Your task to perform on an android device: Add "bose quietcomfort 35" to the cart on ebay, then select checkout. Image 0: 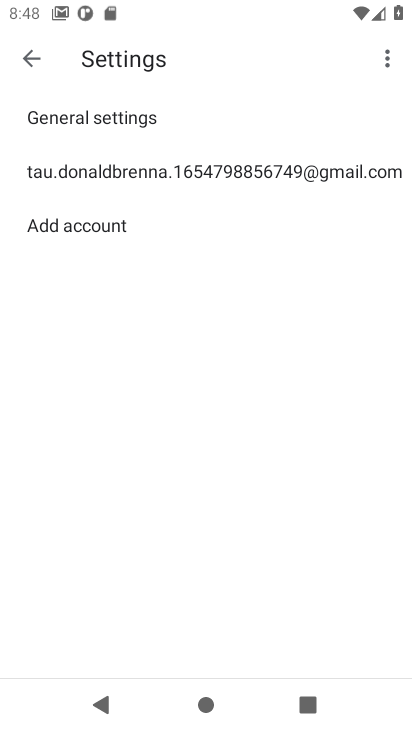
Step 0: press home button
Your task to perform on an android device: Add "bose quietcomfort 35" to the cart on ebay, then select checkout. Image 1: 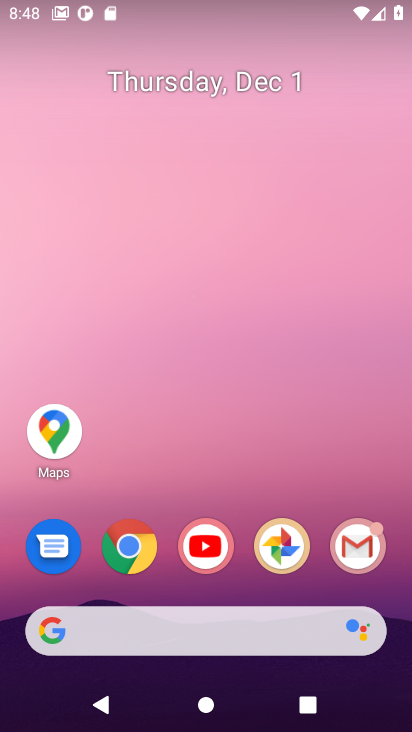
Step 1: click (138, 547)
Your task to perform on an android device: Add "bose quietcomfort 35" to the cart on ebay, then select checkout. Image 2: 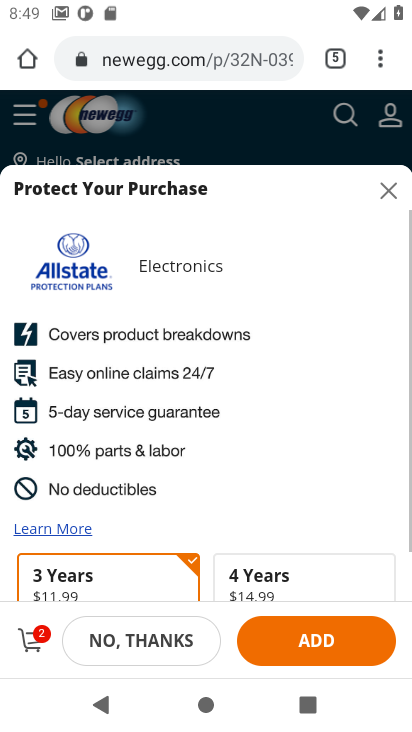
Step 2: click (172, 64)
Your task to perform on an android device: Add "bose quietcomfort 35" to the cart on ebay, then select checkout. Image 3: 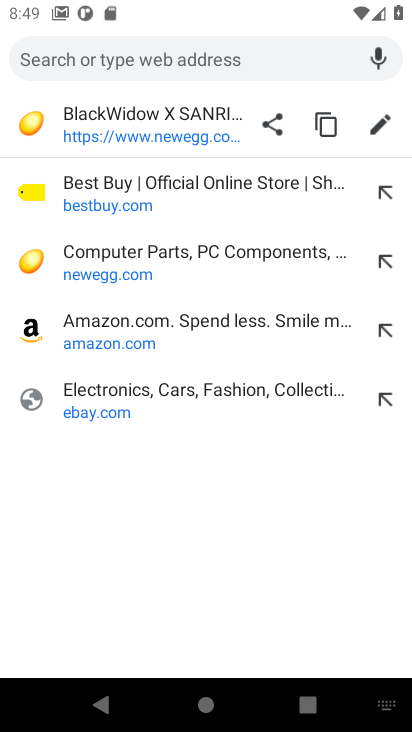
Step 3: click (79, 394)
Your task to perform on an android device: Add "bose quietcomfort 35" to the cart on ebay, then select checkout. Image 4: 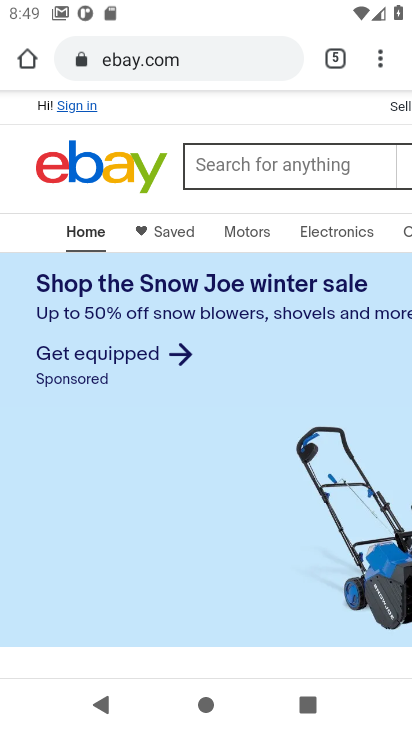
Step 4: click (274, 175)
Your task to perform on an android device: Add "bose quietcomfort 35" to the cart on ebay, then select checkout. Image 5: 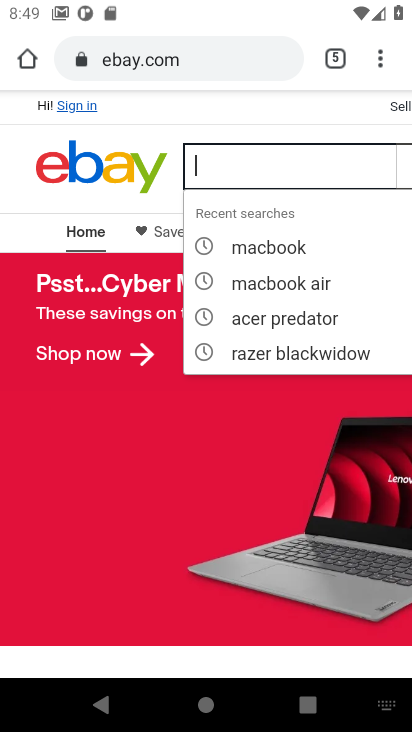
Step 5: type "bose quietcomfort 35"
Your task to perform on an android device: Add "bose quietcomfort 35" to the cart on ebay, then select checkout. Image 6: 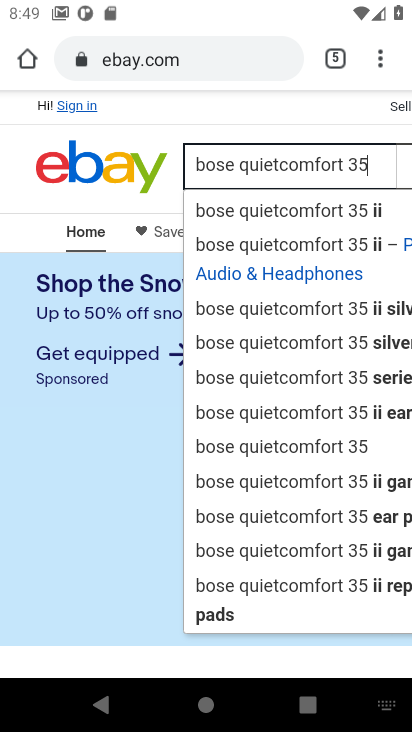
Step 6: click (324, 440)
Your task to perform on an android device: Add "bose quietcomfort 35" to the cart on ebay, then select checkout. Image 7: 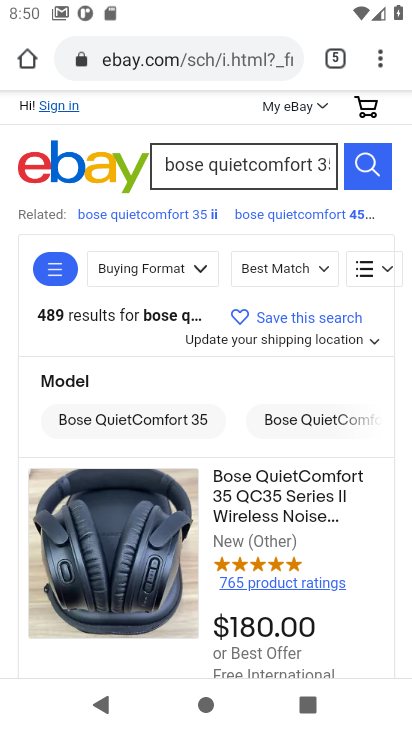
Step 7: drag from (204, 503) to (202, 291)
Your task to perform on an android device: Add "bose quietcomfort 35" to the cart on ebay, then select checkout. Image 8: 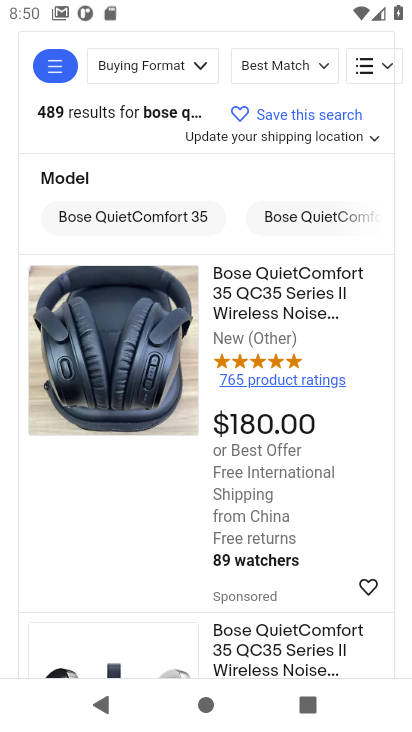
Step 8: click (259, 338)
Your task to perform on an android device: Add "bose quietcomfort 35" to the cart on ebay, then select checkout. Image 9: 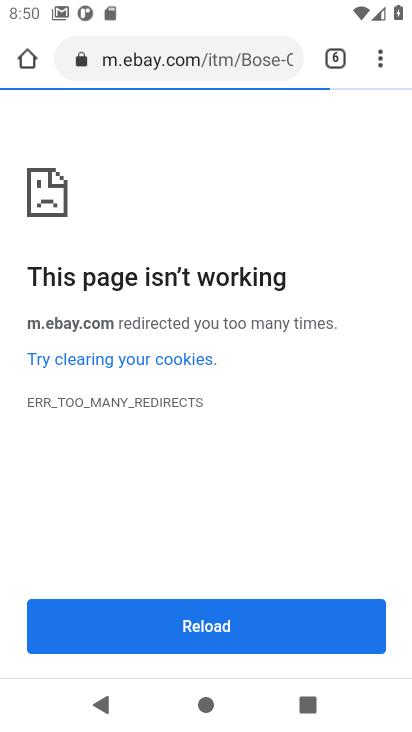
Step 9: task complete